Your task to perform on an android device: Open accessibility settings Image 0: 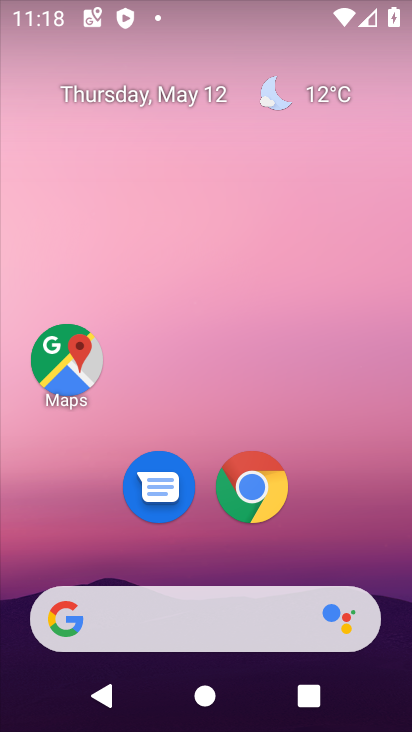
Step 0: drag from (371, 575) to (375, 1)
Your task to perform on an android device: Open accessibility settings Image 1: 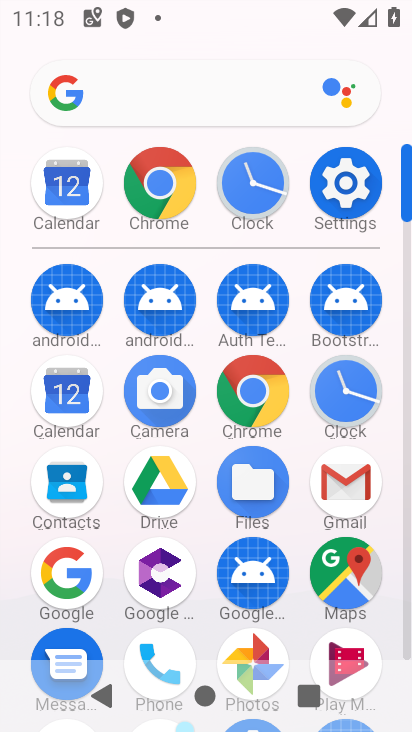
Step 1: click (345, 182)
Your task to perform on an android device: Open accessibility settings Image 2: 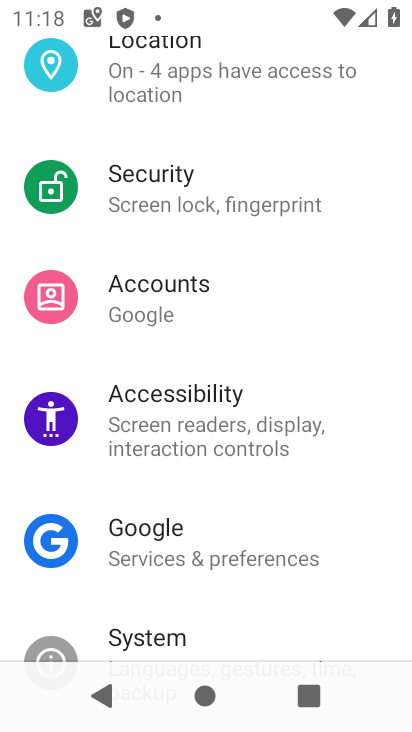
Step 2: click (171, 419)
Your task to perform on an android device: Open accessibility settings Image 3: 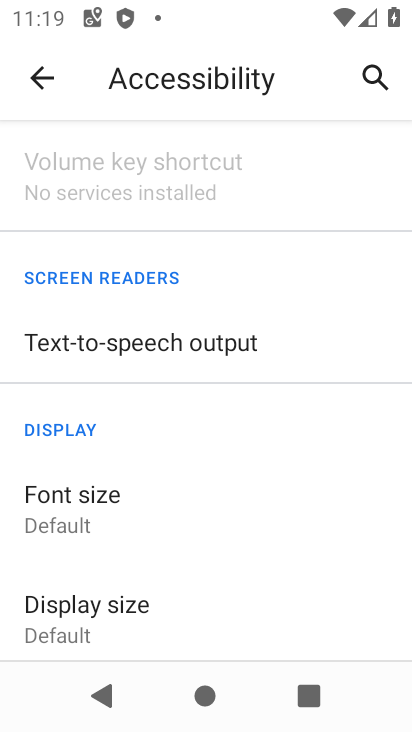
Step 3: task complete